Your task to perform on an android device: open wifi settings Image 0: 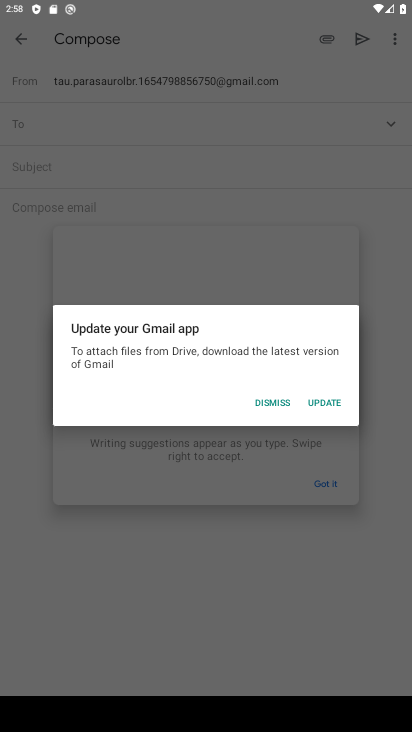
Step 0: press home button
Your task to perform on an android device: open wifi settings Image 1: 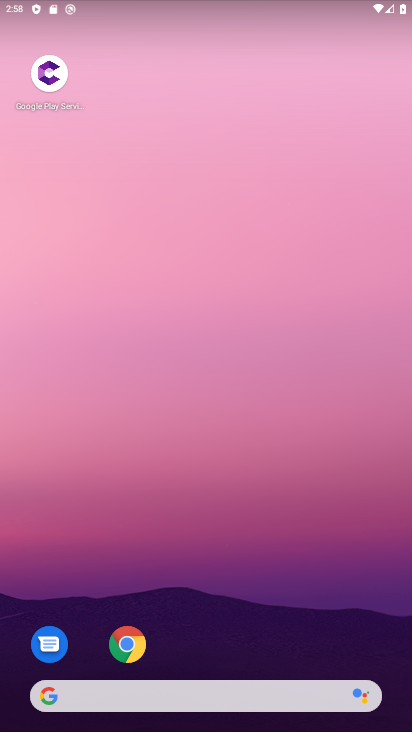
Step 1: drag from (241, 645) to (128, 116)
Your task to perform on an android device: open wifi settings Image 2: 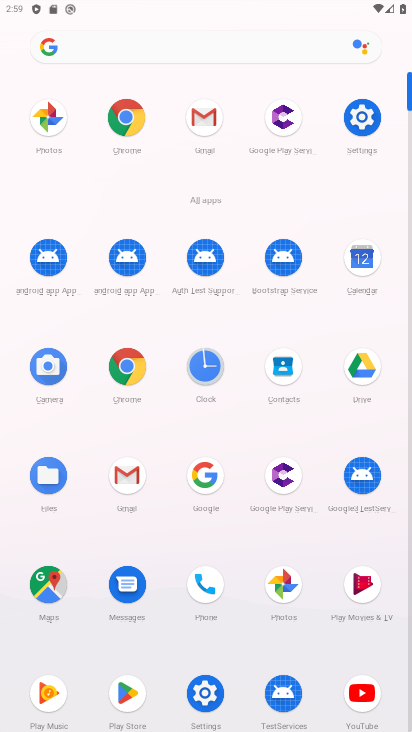
Step 2: click (364, 118)
Your task to perform on an android device: open wifi settings Image 3: 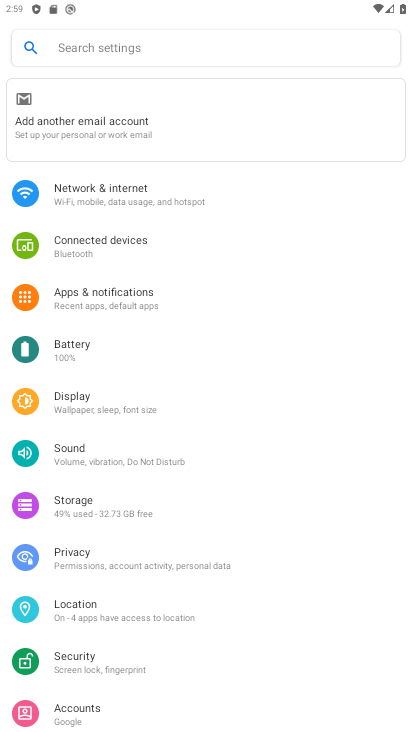
Step 3: click (142, 200)
Your task to perform on an android device: open wifi settings Image 4: 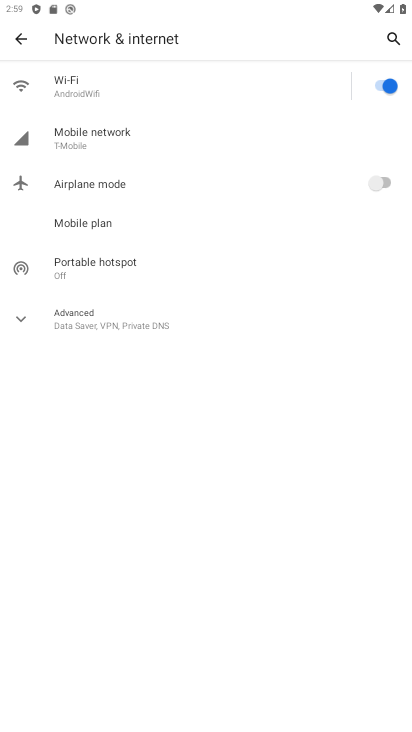
Step 4: click (285, 87)
Your task to perform on an android device: open wifi settings Image 5: 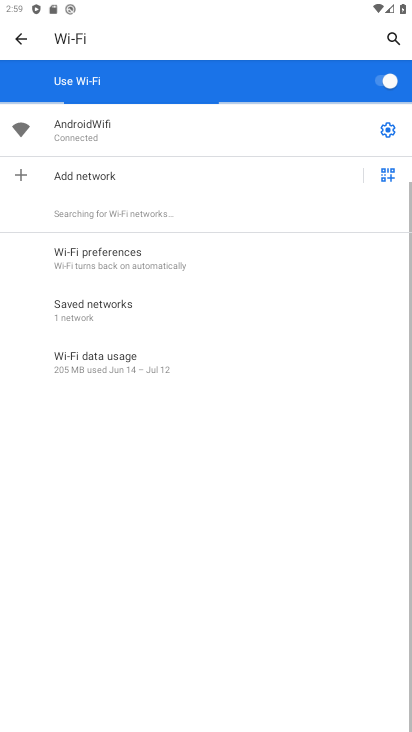
Step 5: click (386, 124)
Your task to perform on an android device: open wifi settings Image 6: 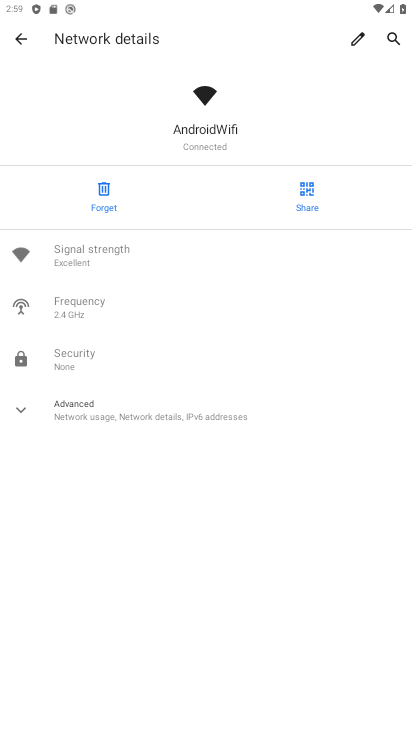
Step 6: task complete